Your task to perform on an android device: Open Google Chrome and open the bookmarks view Image 0: 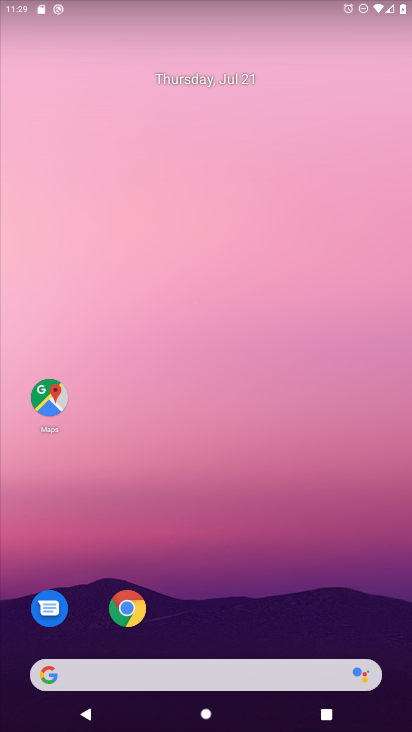
Step 0: drag from (288, 605) to (207, 3)
Your task to perform on an android device: Open Google Chrome and open the bookmarks view Image 1: 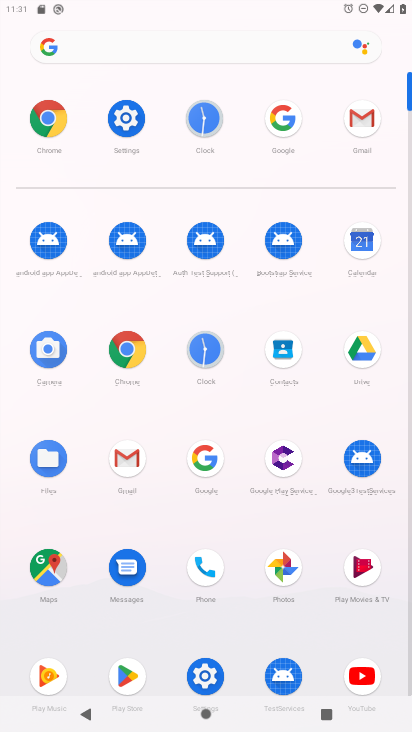
Step 1: click (119, 351)
Your task to perform on an android device: Open Google Chrome and open the bookmarks view Image 2: 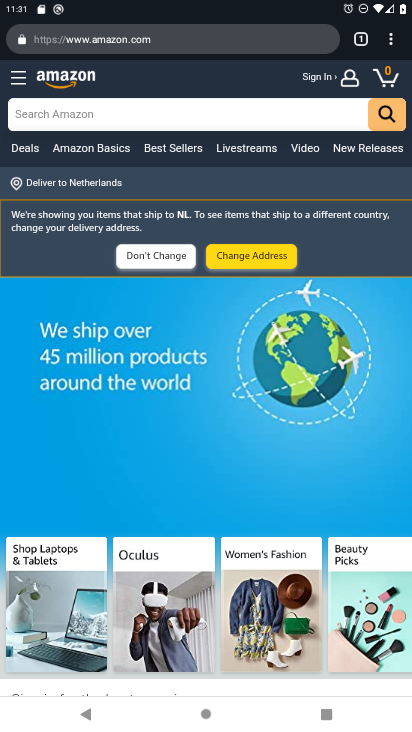
Step 2: click (391, 35)
Your task to perform on an android device: Open Google Chrome and open the bookmarks view Image 3: 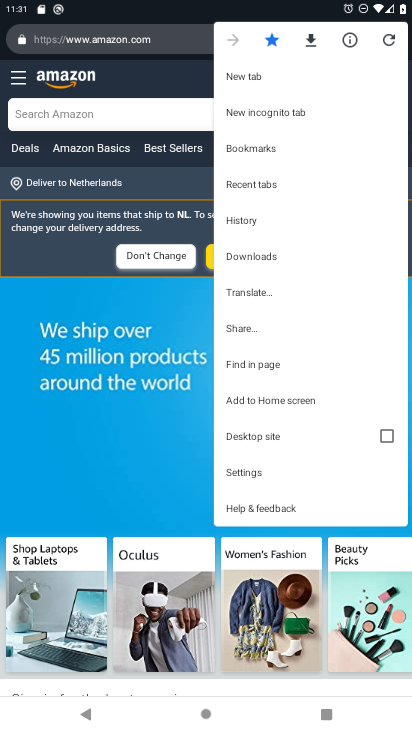
Step 3: click (264, 154)
Your task to perform on an android device: Open Google Chrome and open the bookmarks view Image 4: 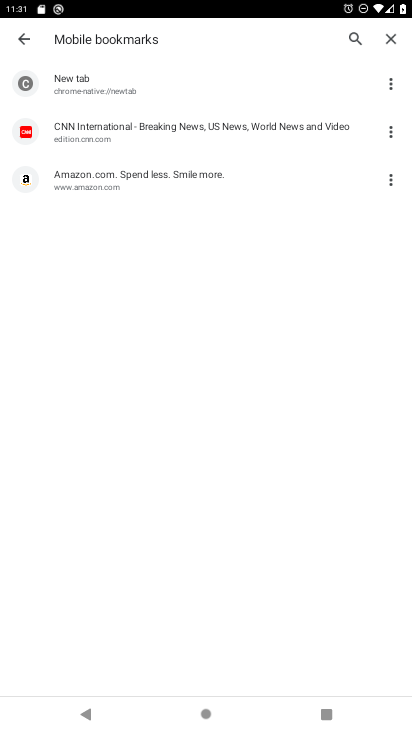
Step 4: task complete